Your task to perform on an android device: set the timer Image 0: 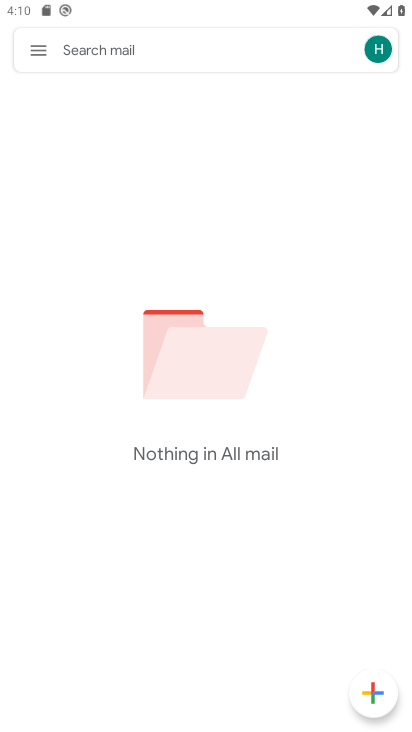
Step 0: press back button
Your task to perform on an android device: set the timer Image 1: 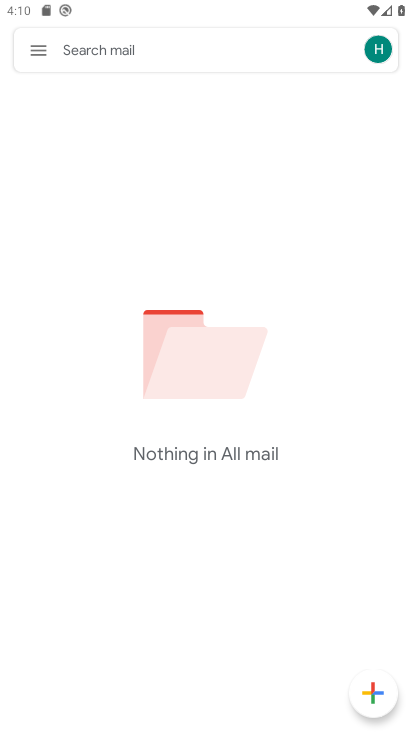
Step 1: press back button
Your task to perform on an android device: set the timer Image 2: 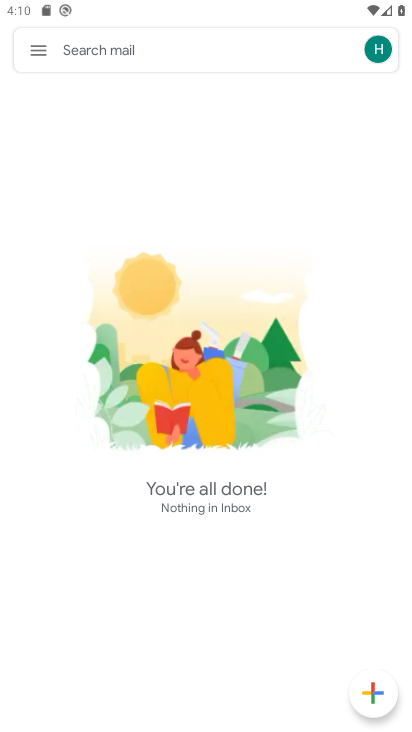
Step 2: press back button
Your task to perform on an android device: set the timer Image 3: 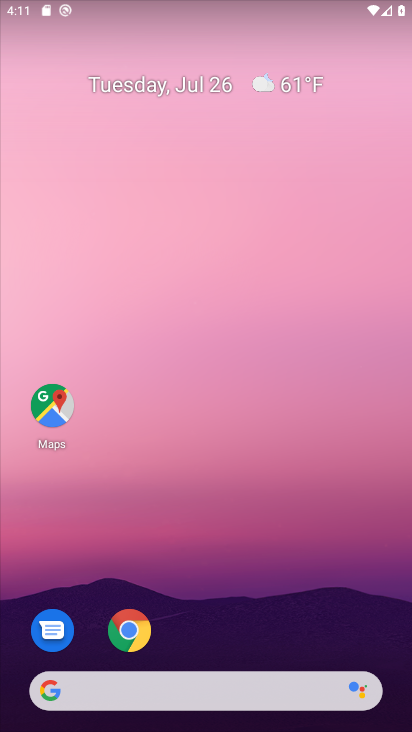
Step 3: drag from (222, 654) to (165, 104)
Your task to perform on an android device: set the timer Image 4: 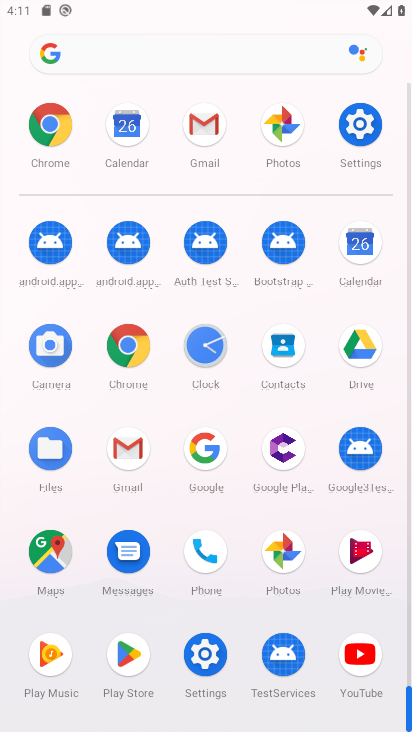
Step 4: click (207, 348)
Your task to perform on an android device: set the timer Image 5: 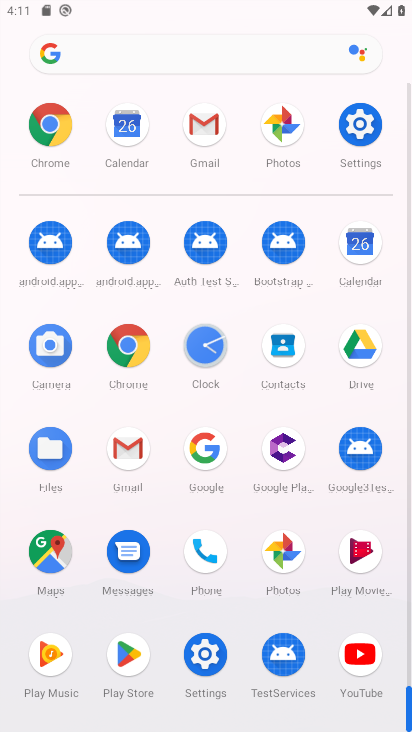
Step 5: click (207, 348)
Your task to perform on an android device: set the timer Image 6: 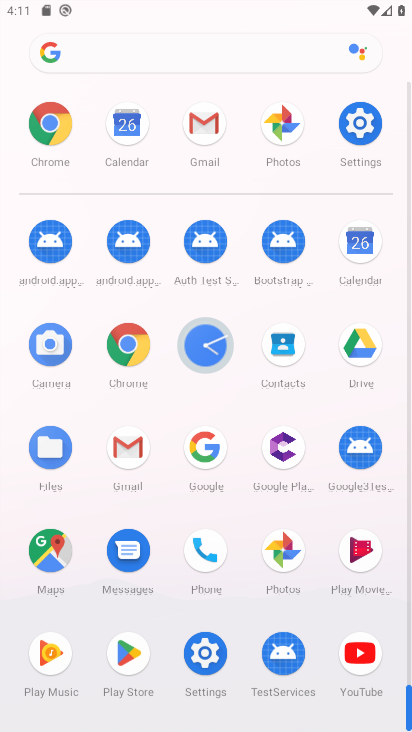
Step 6: click (207, 348)
Your task to perform on an android device: set the timer Image 7: 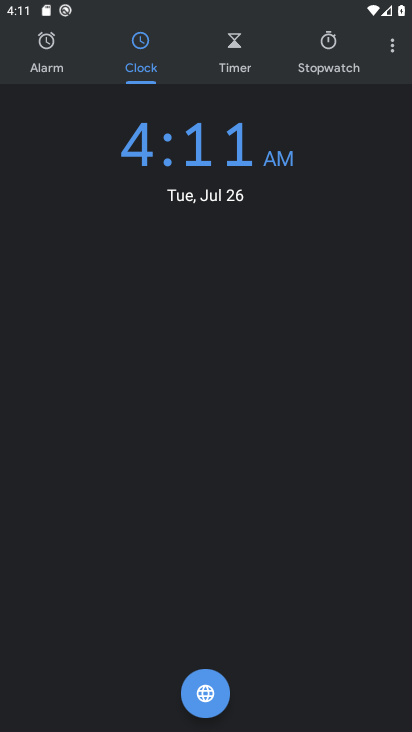
Step 7: click (234, 47)
Your task to perform on an android device: set the timer Image 8: 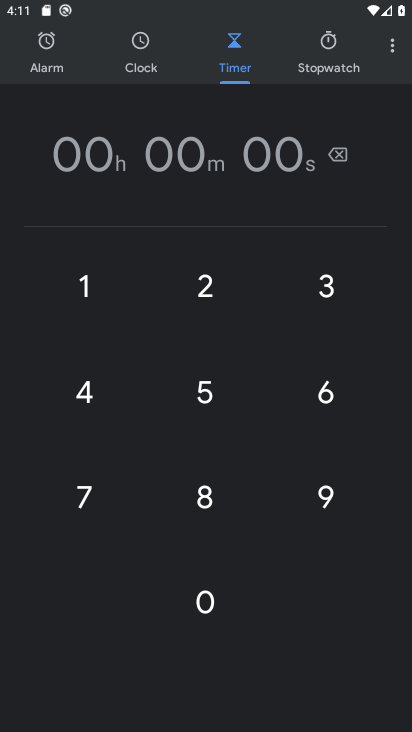
Step 8: click (198, 387)
Your task to perform on an android device: set the timer Image 9: 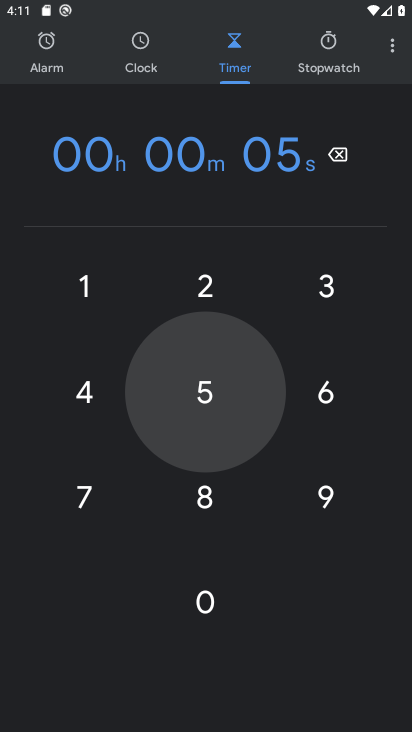
Step 9: click (198, 387)
Your task to perform on an android device: set the timer Image 10: 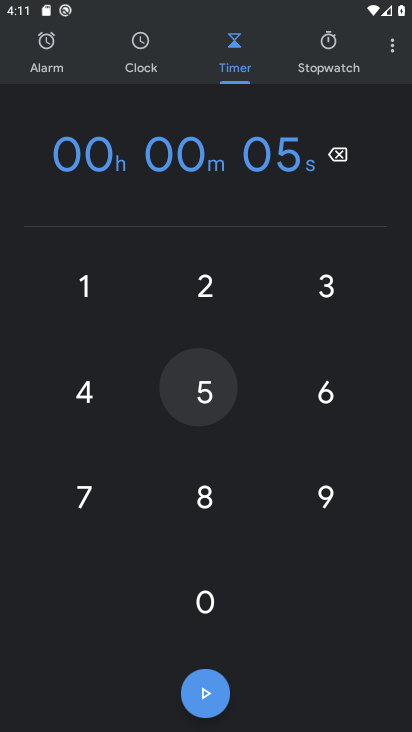
Step 10: click (198, 387)
Your task to perform on an android device: set the timer Image 11: 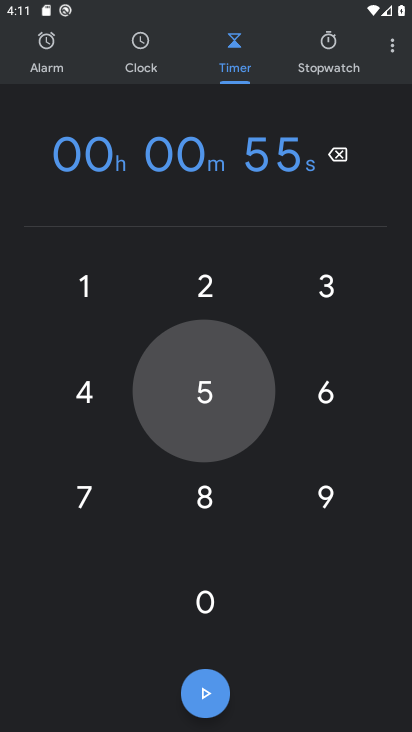
Step 11: click (198, 387)
Your task to perform on an android device: set the timer Image 12: 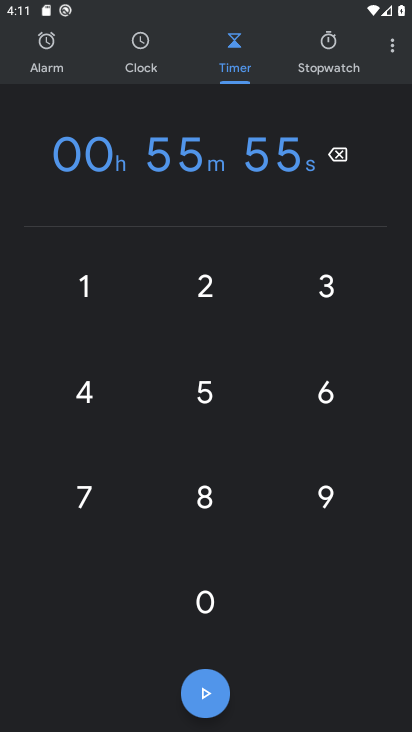
Step 12: click (209, 700)
Your task to perform on an android device: set the timer Image 13: 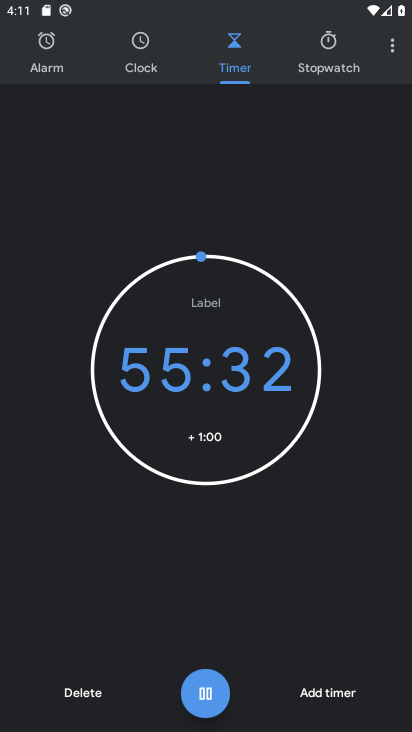
Step 13: click (201, 682)
Your task to perform on an android device: set the timer Image 14: 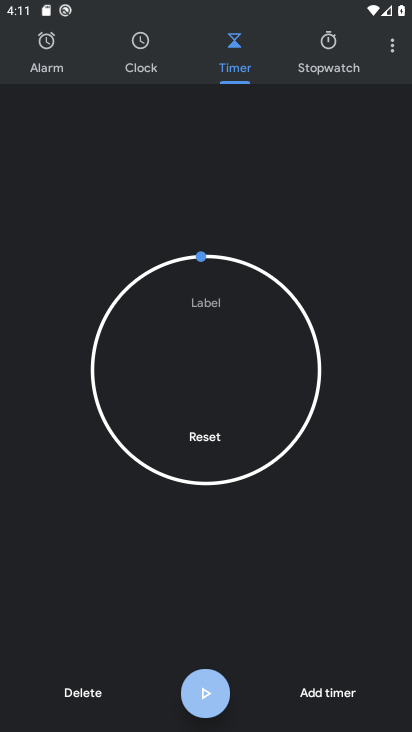
Step 14: click (202, 684)
Your task to perform on an android device: set the timer Image 15: 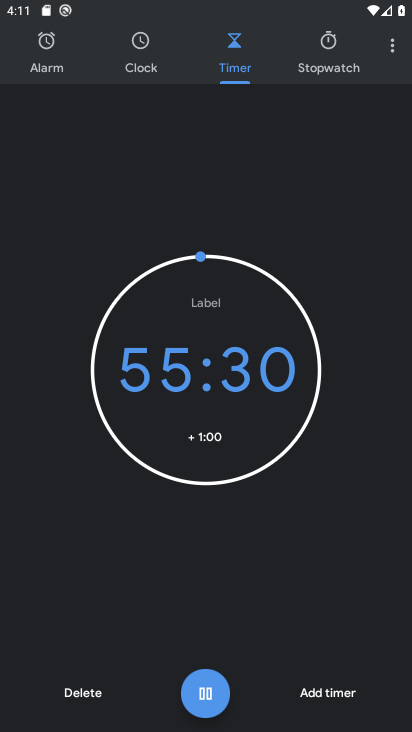
Step 15: click (201, 693)
Your task to perform on an android device: set the timer Image 16: 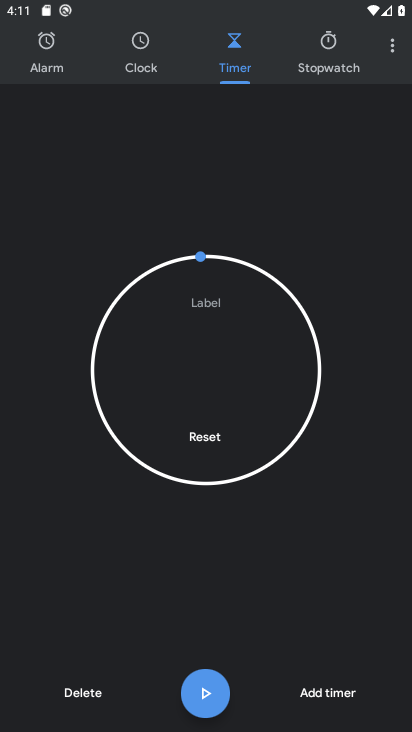
Step 16: task complete